Your task to perform on an android device: Go to sound settings Image 0: 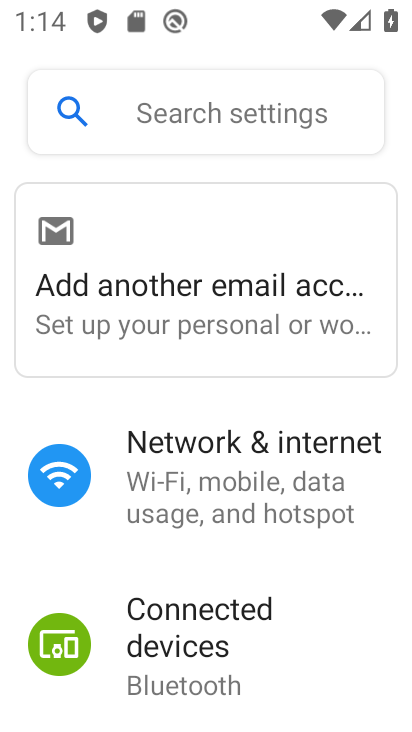
Step 0: press home button
Your task to perform on an android device: Go to sound settings Image 1: 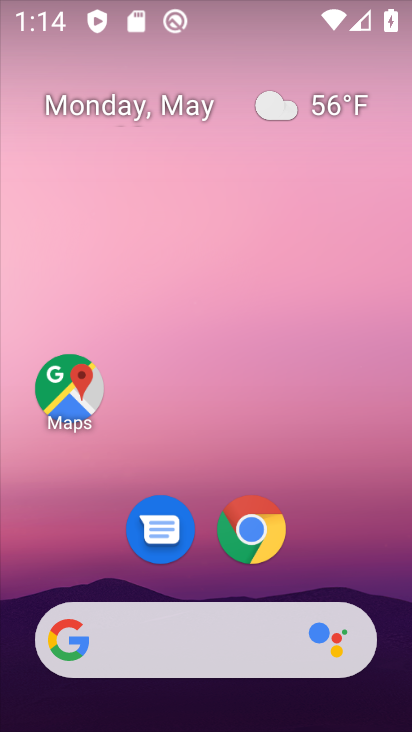
Step 1: drag from (328, 569) to (319, 29)
Your task to perform on an android device: Go to sound settings Image 2: 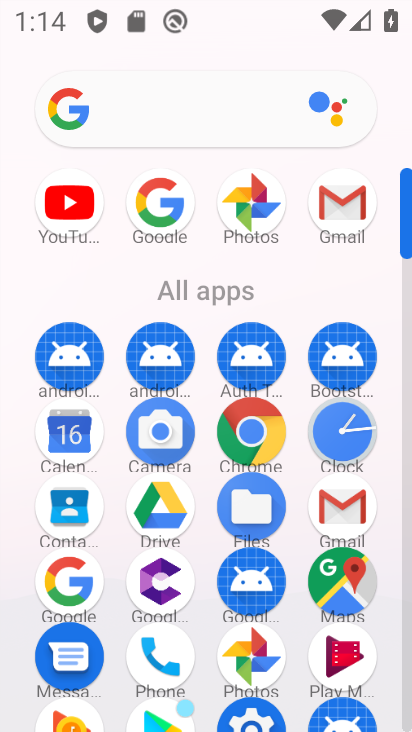
Step 2: drag from (291, 479) to (288, 163)
Your task to perform on an android device: Go to sound settings Image 3: 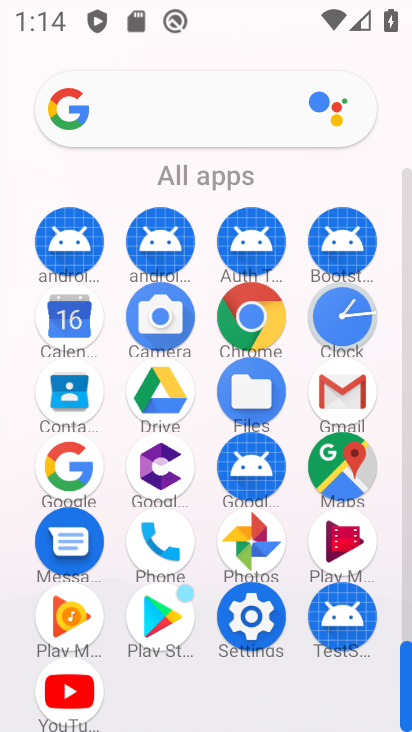
Step 3: click (240, 619)
Your task to perform on an android device: Go to sound settings Image 4: 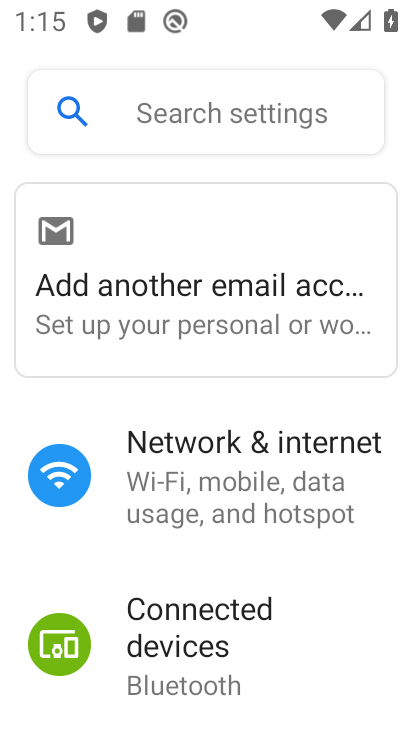
Step 4: drag from (221, 622) to (228, 343)
Your task to perform on an android device: Go to sound settings Image 5: 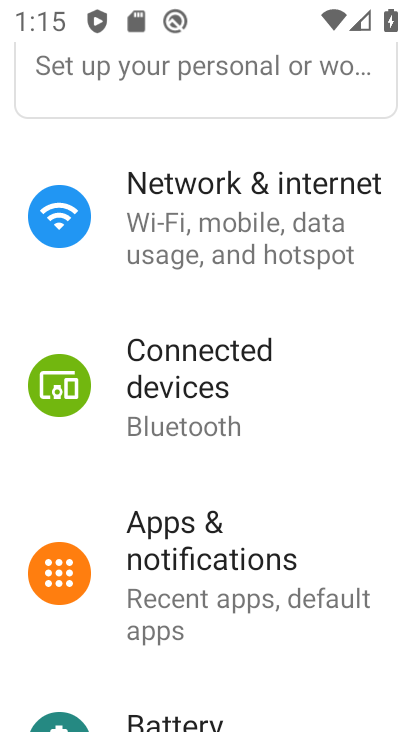
Step 5: drag from (230, 636) to (211, 364)
Your task to perform on an android device: Go to sound settings Image 6: 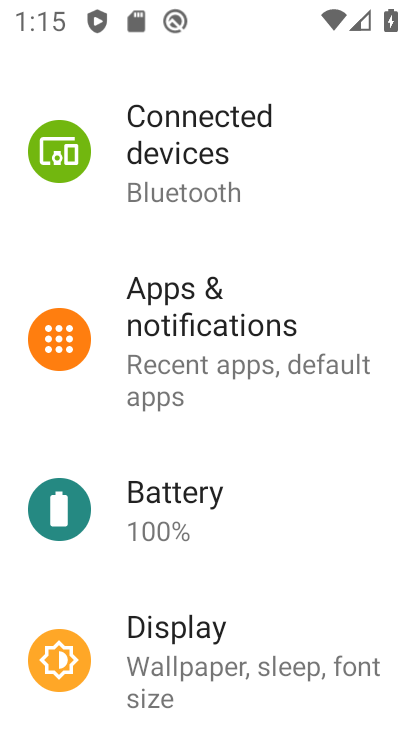
Step 6: drag from (240, 628) to (238, 344)
Your task to perform on an android device: Go to sound settings Image 7: 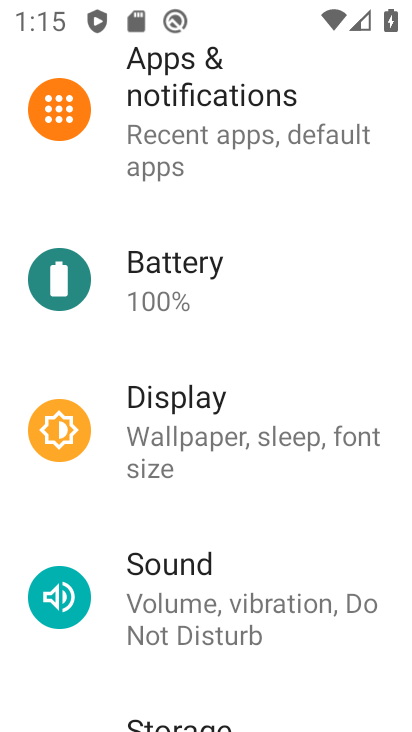
Step 7: click (244, 606)
Your task to perform on an android device: Go to sound settings Image 8: 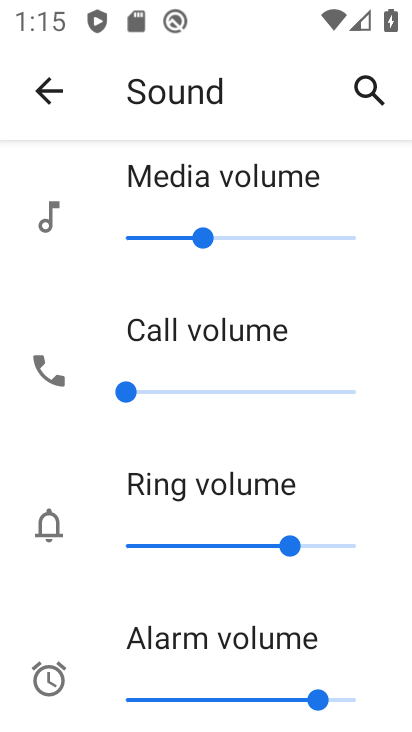
Step 8: task complete